Your task to perform on an android device: turn smart compose on in the gmail app Image 0: 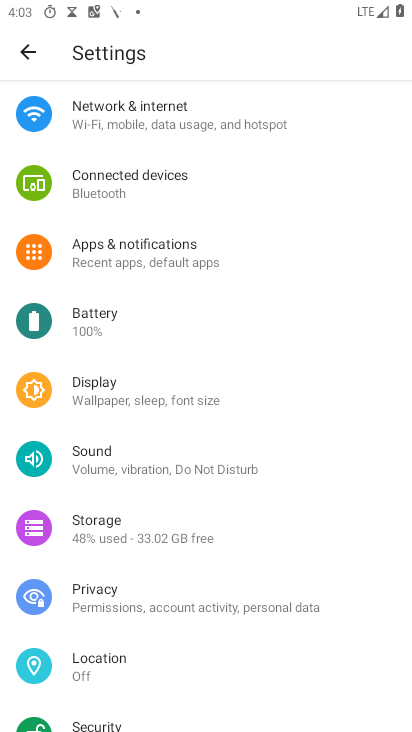
Step 0: press home button
Your task to perform on an android device: turn smart compose on in the gmail app Image 1: 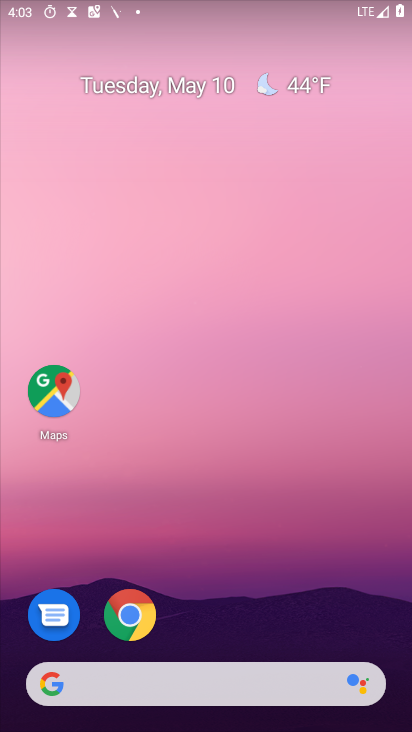
Step 1: drag from (243, 670) to (299, 18)
Your task to perform on an android device: turn smart compose on in the gmail app Image 2: 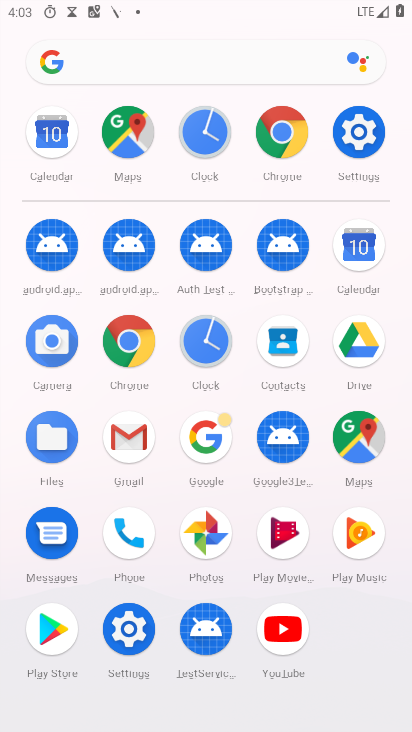
Step 2: click (128, 433)
Your task to perform on an android device: turn smart compose on in the gmail app Image 3: 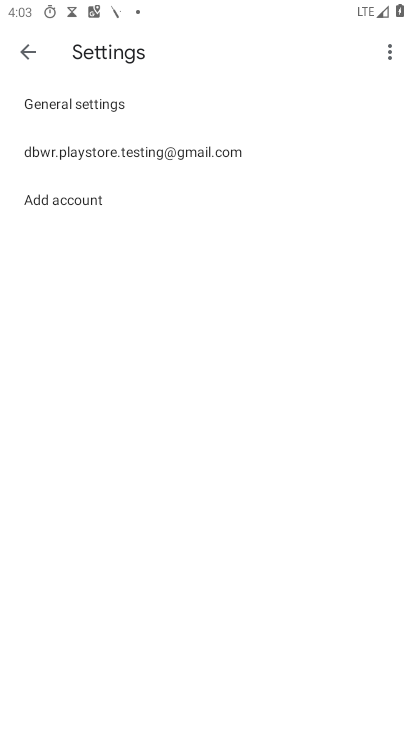
Step 3: press back button
Your task to perform on an android device: turn smart compose on in the gmail app Image 4: 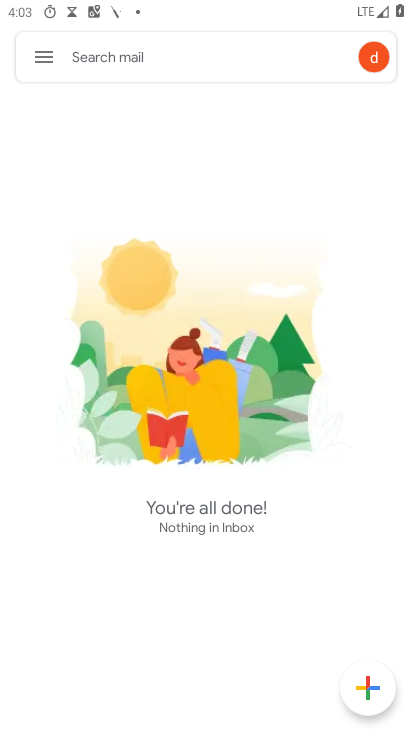
Step 4: click (44, 55)
Your task to perform on an android device: turn smart compose on in the gmail app Image 5: 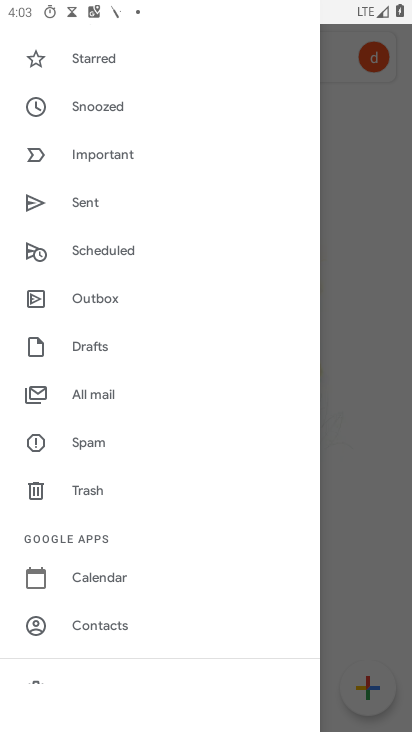
Step 5: drag from (125, 610) to (105, 93)
Your task to perform on an android device: turn smart compose on in the gmail app Image 6: 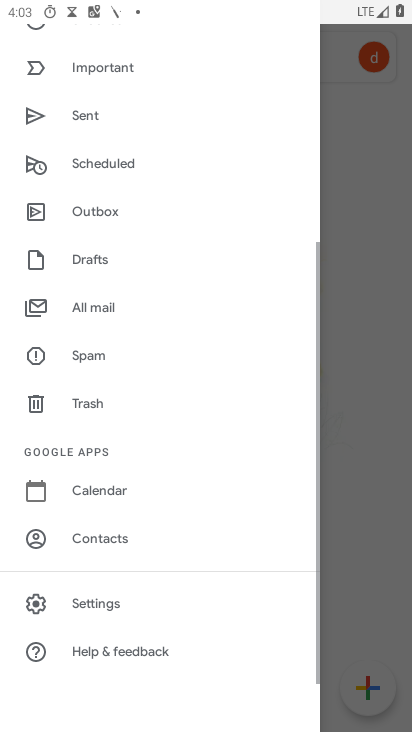
Step 6: click (127, 609)
Your task to perform on an android device: turn smart compose on in the gmail app Image 7: 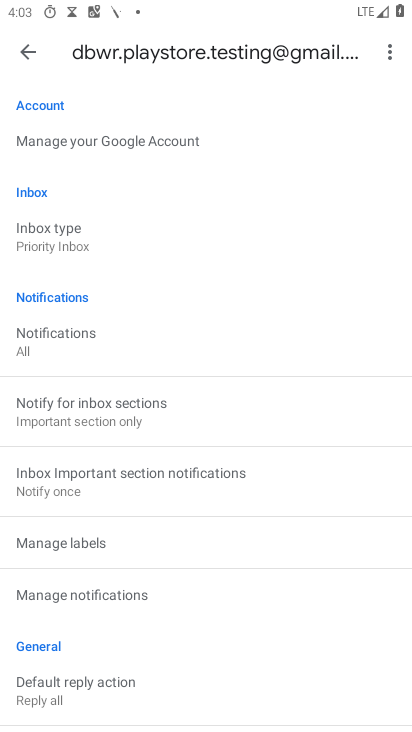
Step 7: task complete